Your task to perform on an android device: turn off notifications settings in the gmail app Image 0: 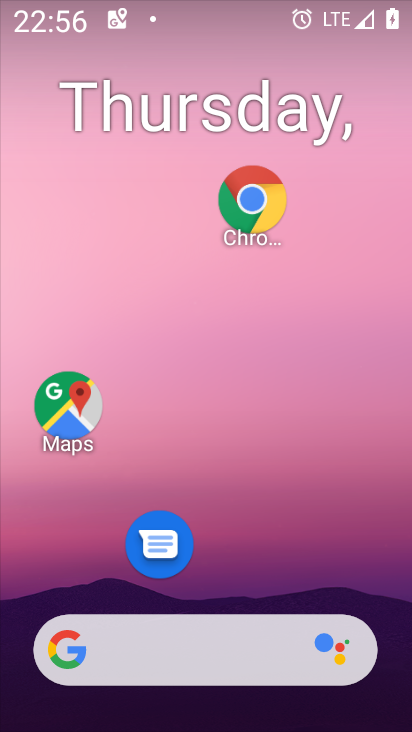
Step 0: drag from (238, 602) to (362, 136)
Your task to perform on an android device: turn off notifications settings in the gmail app Image 1: 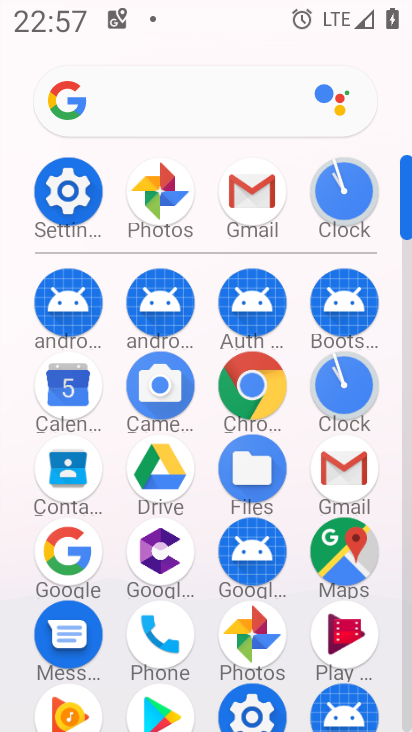
Step 1: click (369, 476)
Your task to perform on an android device: turn off notifications settings in the gmail app Image 2: 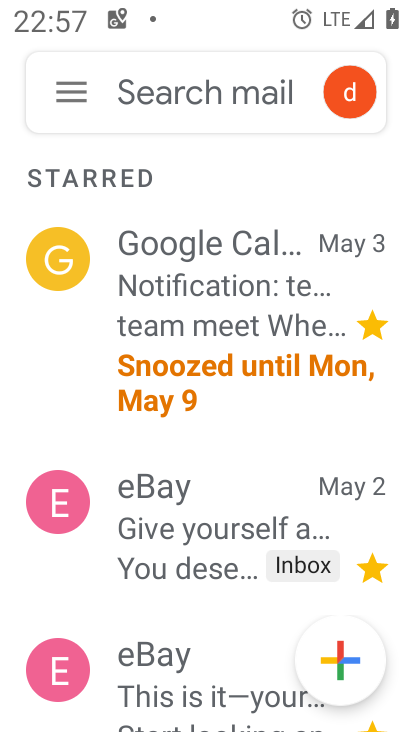
Step 2: click (72, 90)
Your task to perform on an android device: turn off notifications settings in the gmail app Image 3: 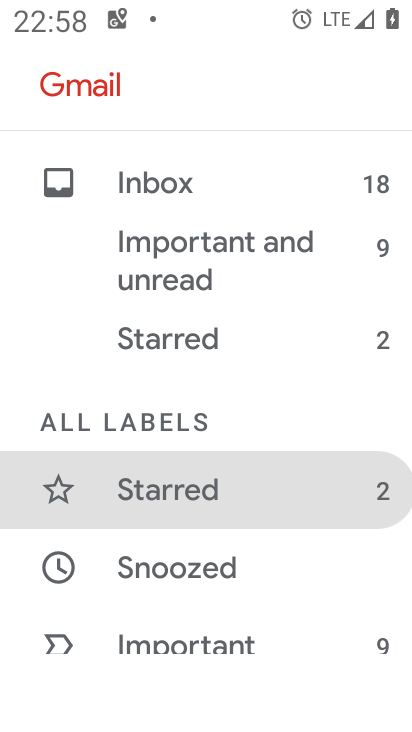
Step 3: drag from (140, 633) to (216, 85)
Your task to perform on an android device: turn off notifications settings in the gmail app Image 4: 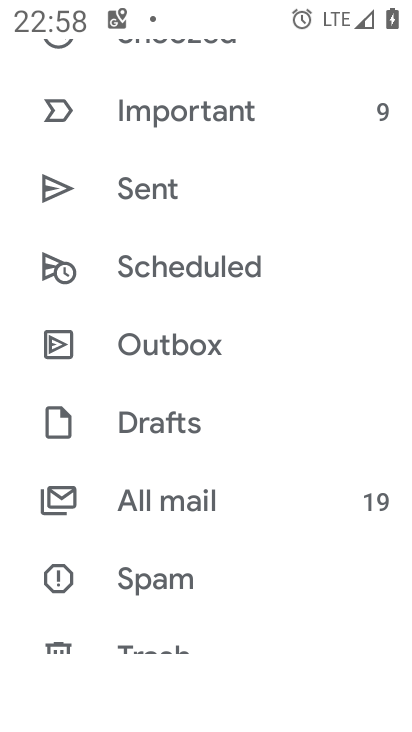
Step 4: drag from (90, 610) to (181, 143)
Your task to perform on an android device: turn off notifications settings in the gmail app Image 5: 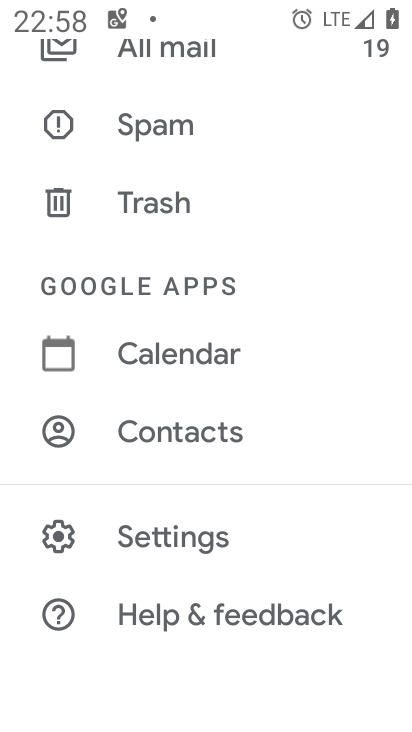
Step 5: click (101, 534)
Your task to perform on an android device: turn off notifications settings in the gmail app Image 6: 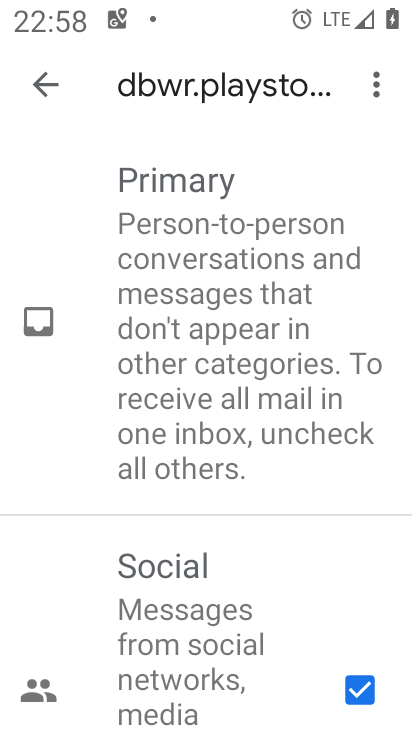
Step 6: drag from (124, 624) to (217, 239)
Your task to perform on an android device: turn off notifications settings in the gmail app Image 7: 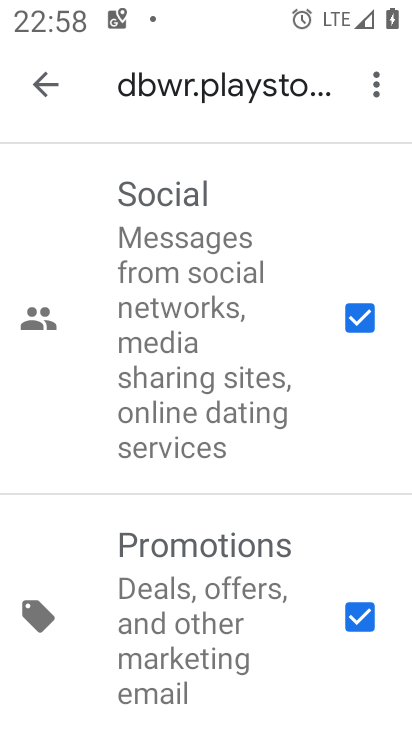
Step 7: drag from (187, 596) to (201, 319)
Your task to perform on an android device: turn off notifications settings in the gmail app Image 8: 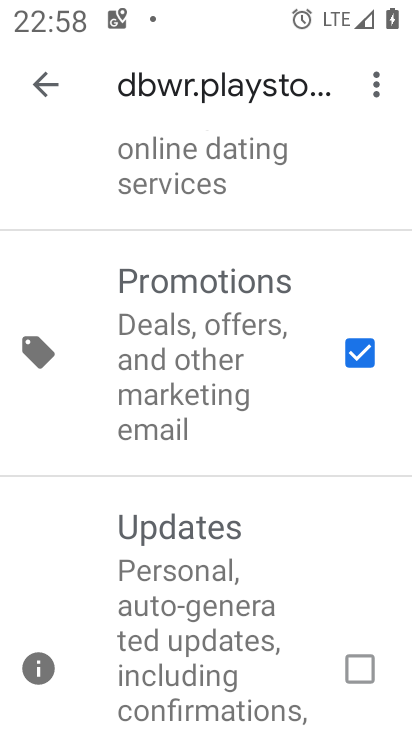
Step 8: click (55, 82)
Your task to perform on an android device: turn off notifications settings in the gmail app Image 9: 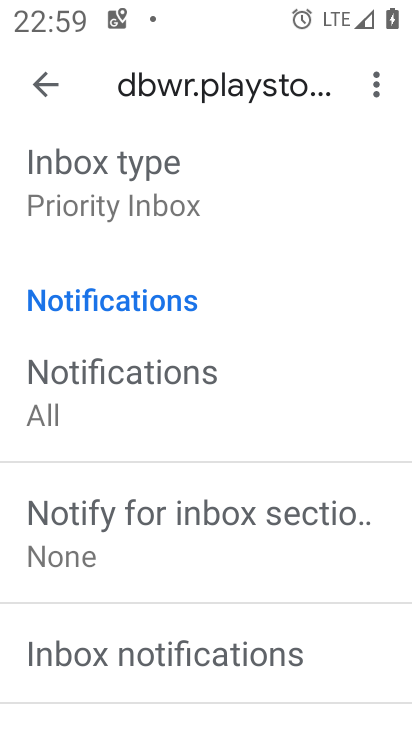
Step 9: click (176, 411)
Your task to perform on an android device: turn off notifications settings in the gmail app Image 10: 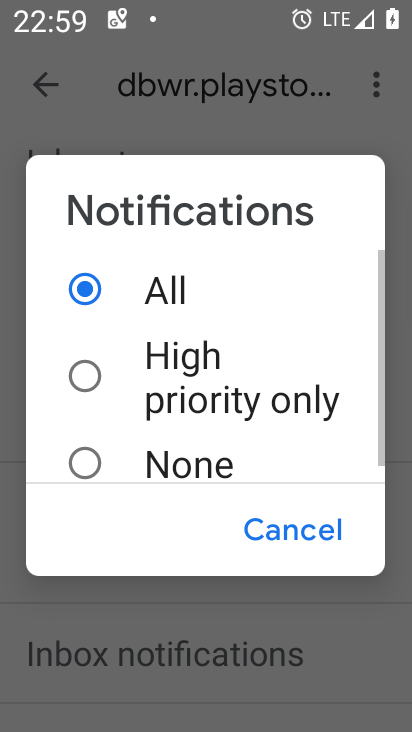
Step 10: click (182, 477)
Your task to perform on an android device: turn off notifications settings in the gmail app Image 11: 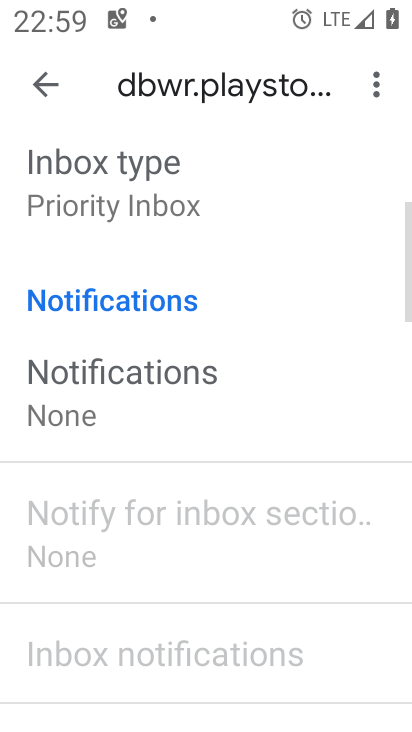
Step 11: task complete